Your task to perform on an android device: Clear the shopping cart on walmart. Search for lenovo thinkpad on walmart, select the first entry, and add it to the cart. Image 0: 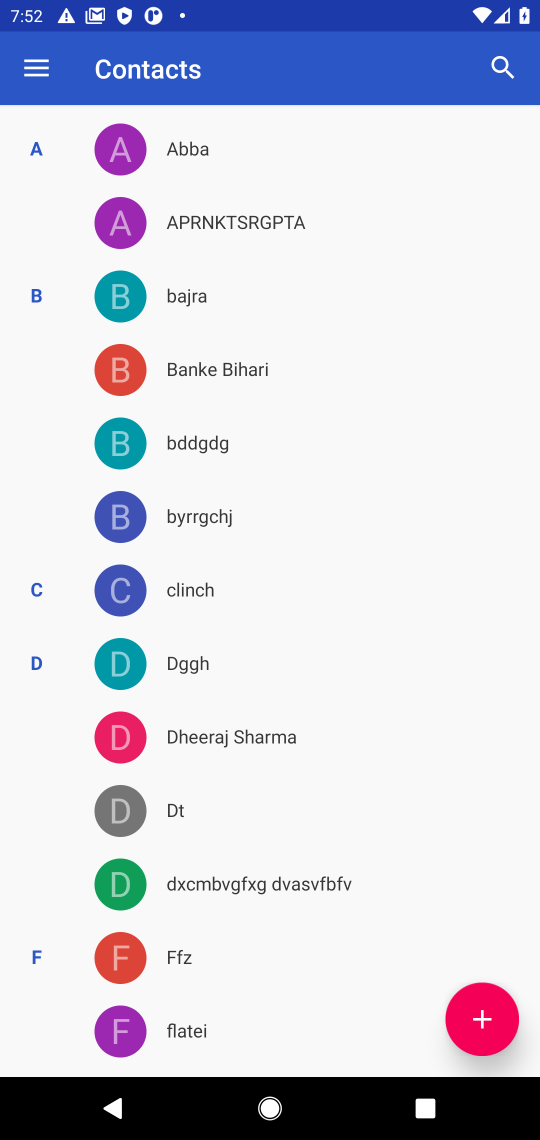
Step 0: press home button
Your task to perform on an android device: Clear the shopping cart on walmart. Search for lenovo thinkpad on walmart, select the first entry, and add it to the cart. Image 1: 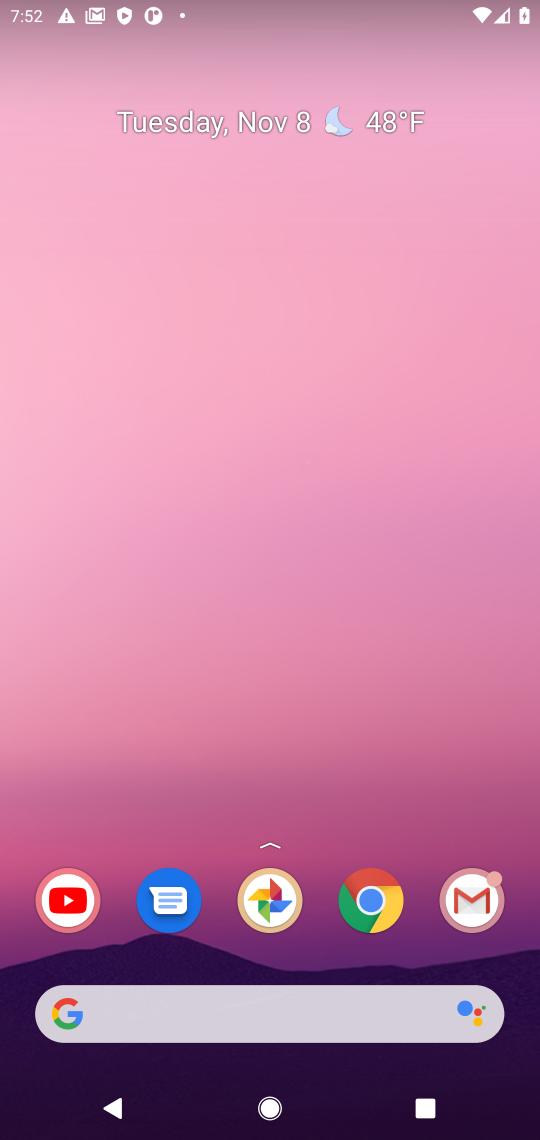
Step 1: click (392, 900)
Your task to perform on an android device: Clear the shopping cart on walmart. Search for lenovo thinkpad on walmart, select the first entry, and add it to the cart. Image 2: 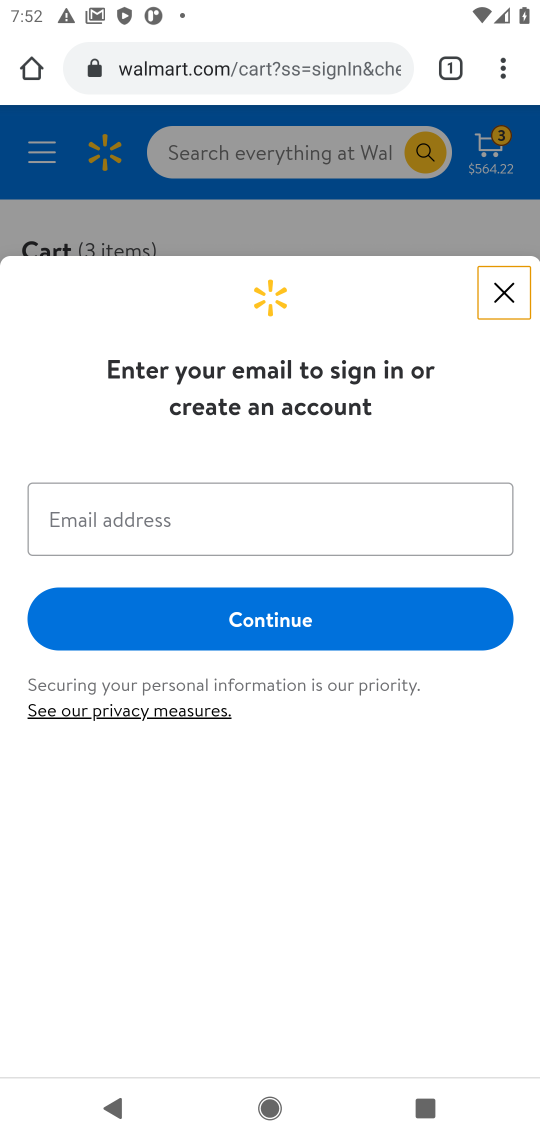
Step 2: click (192, 68)
Your task to perform on an android device: Clear the shopping cart on walmart. Search for lenovo thinkpad on walmart, select the first entry, and add it to the cart. Image 3: 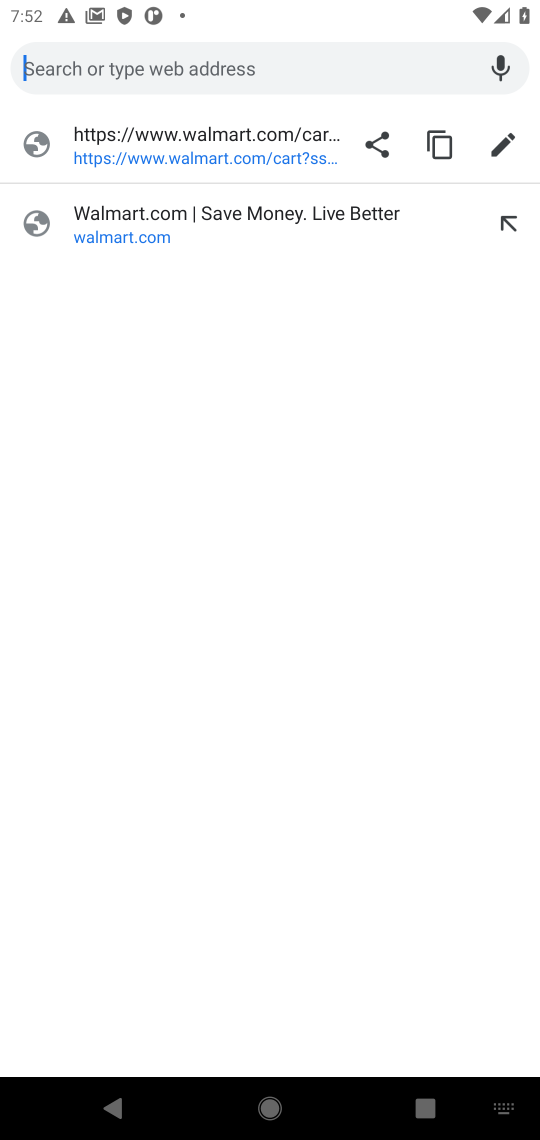
Step 3: type "walmart"
Your task to perform on an android device: Clear the shopping cart on walmart. Search for lenovo thinkpad on walmart, select the first entry, and add it to the cart. Image 4: 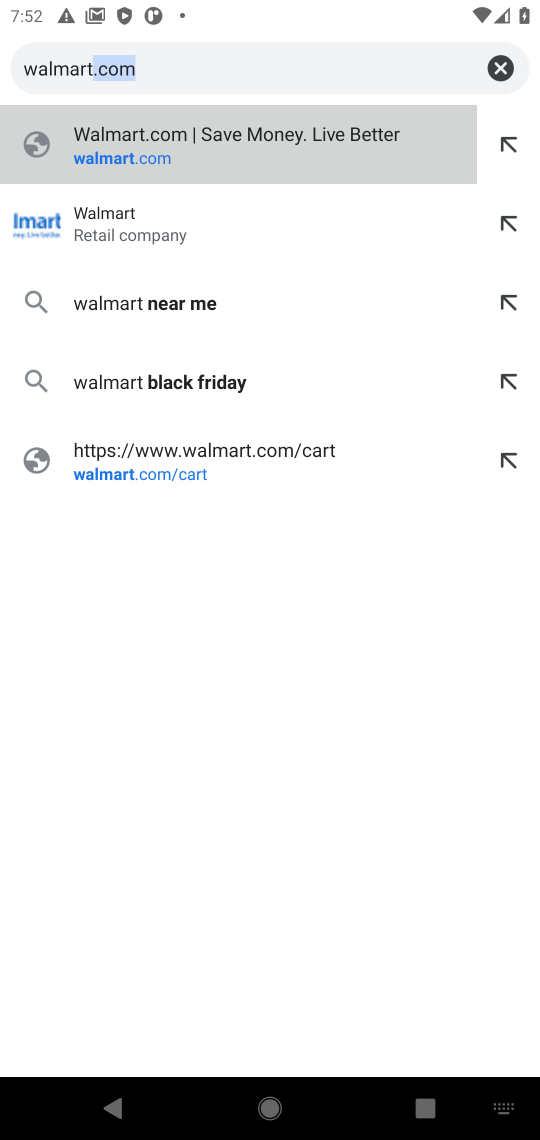
Step 4: click (99, 212)
Your task to perform on an android device: Clear the shopping cart on walmart. Search for lenovo thinkpad on walmart, select the first entry, and add it to the cart. Image 5: 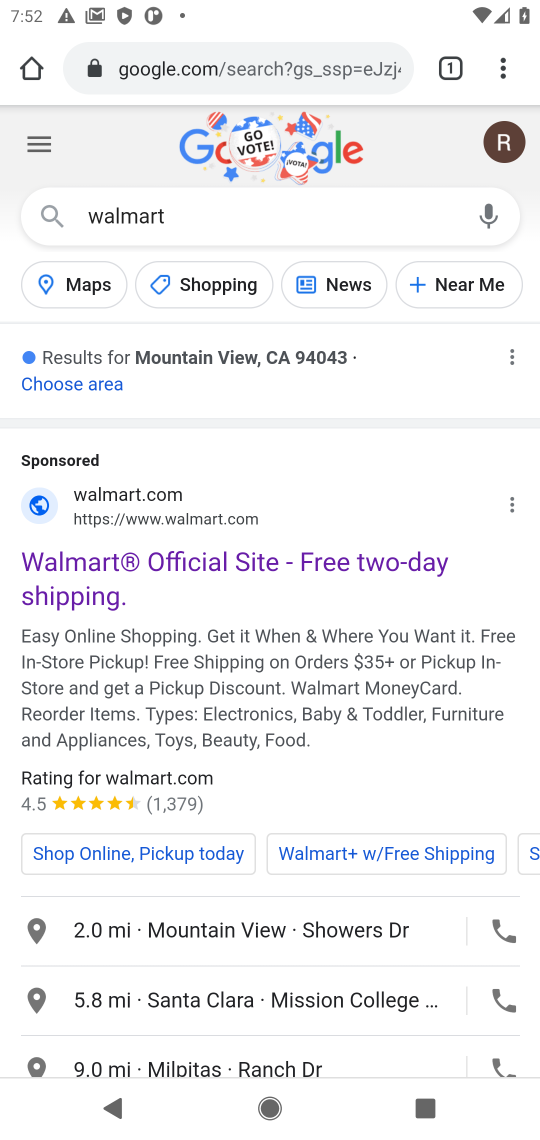
Step 5: drag from (71, 984) to (90, 205)
Your task to perform on an android device: Clear the shopping cart on walmart. Search for lenovo thinkpad on walmart, select the first entry, and add it to the cart. Image 6: 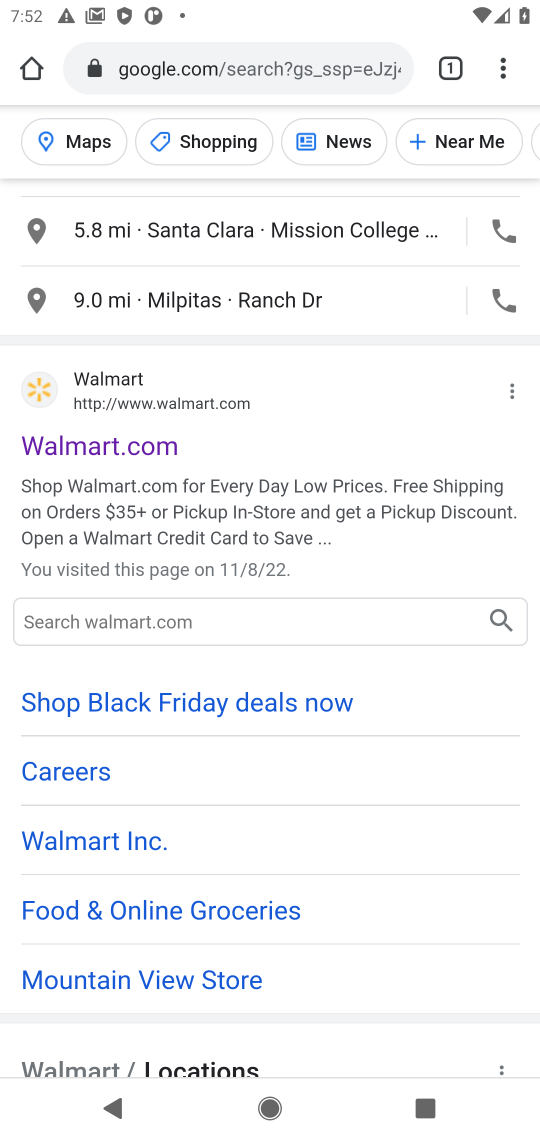
Step 6: click (106, 454)
Your task to perform on an android device: Clear the shopping cart on walmart. Search for lenovo thinkpad on walmart, select the first entry, and add it to the cart. Image 7: 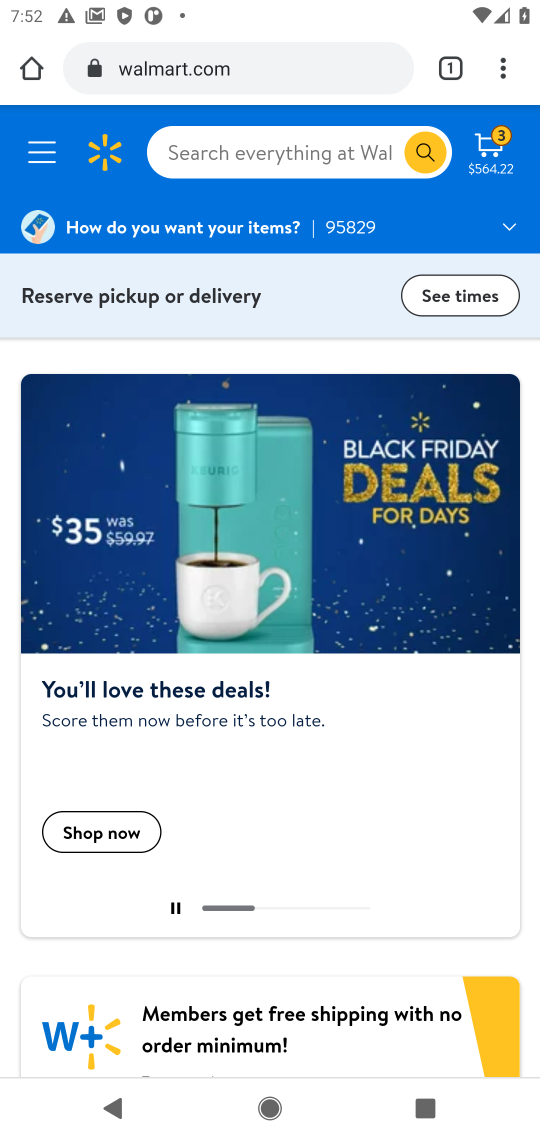
Step 7: click (218, 154)
Your task to perform on an android device: Clear the shopping cart on walmart. Search for lenovo thinkpad on walmart, select the first entry, and add it to the cart. Image 8: 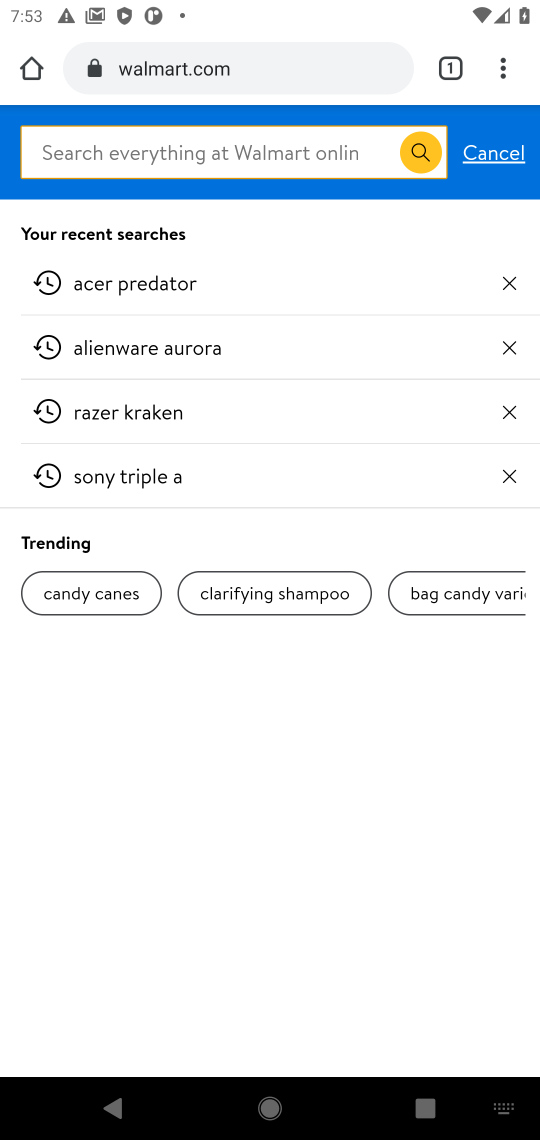
Step 8: type "lenevo thinkpad"
Your task to perform on an android device: Clear the shopping cart on walmart. Search for lenovo thinkpad on walmart, select the first entry, and add it to the cart. Image 9: 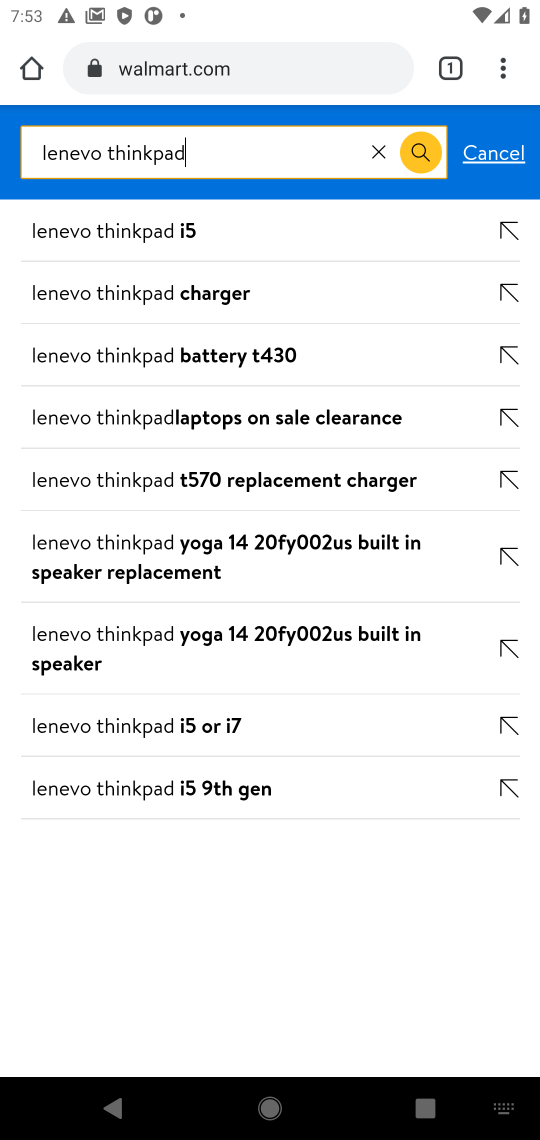
Step 9: click (153, 233)
Your task to perform on an android device: Clear the shopping cart on walmart. Search for lenovo thinkpad on walmart, select the first entry, and add it to the cart. Image 10: 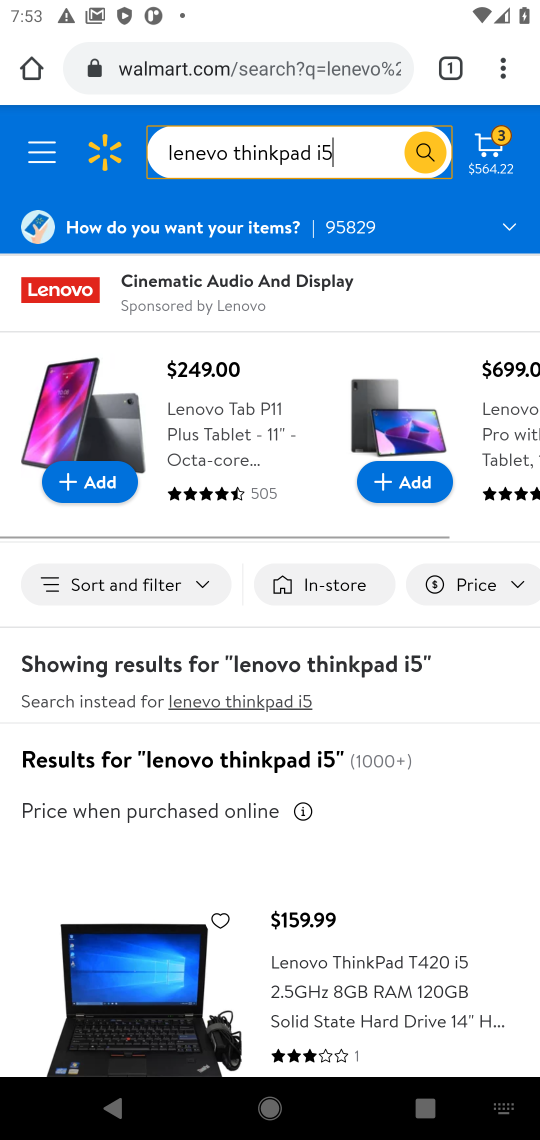
Step 10: drag from (212, 835) to (288, 359)
Your task to perform on an android device: Clear the shopping cart on walmart. Search for lenovo thinkpad on walmart, select the first entry, and add it to the cart. Image 11: 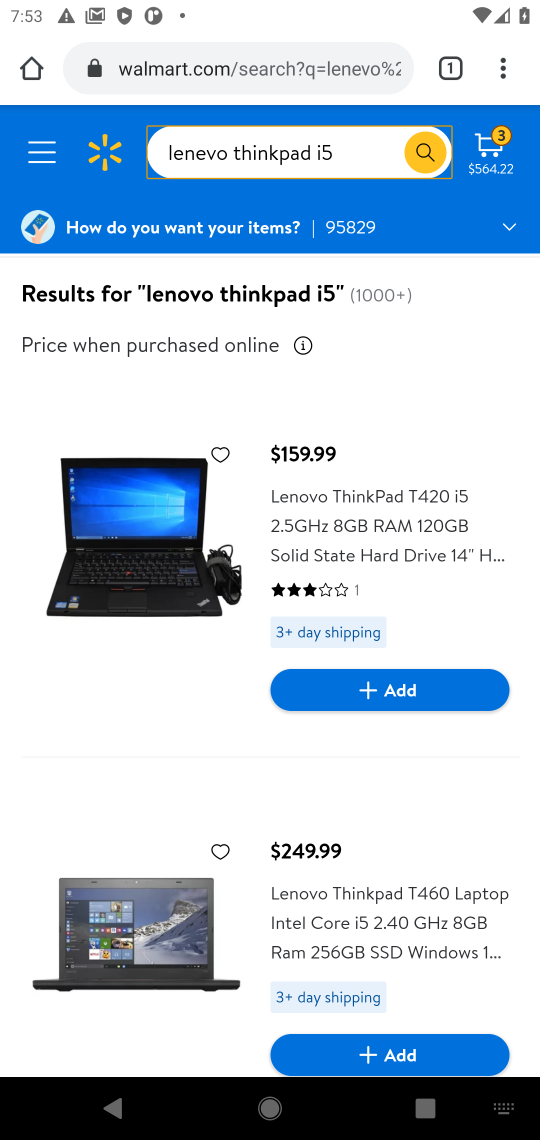
Step 11: click (300, 517)
Your task to perform on an android device: Clear the shopping cart on walmart. Search for lenovo thinkpad on walmart, select the first entry, and add it to the cart. Image 12: 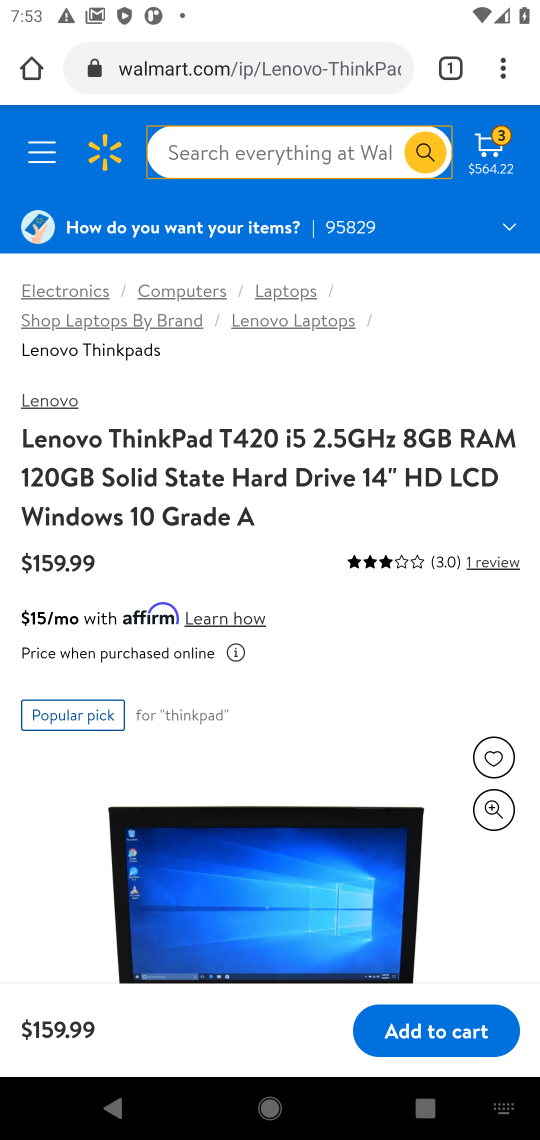
Step 12: drag from (238, 834) to (286, 180)
Your task to perform on an android device: Clear the shopping cart on walmart. Search for lenovo thinkpad on walmart, select the first entry, and add it to the cart. Image 13: 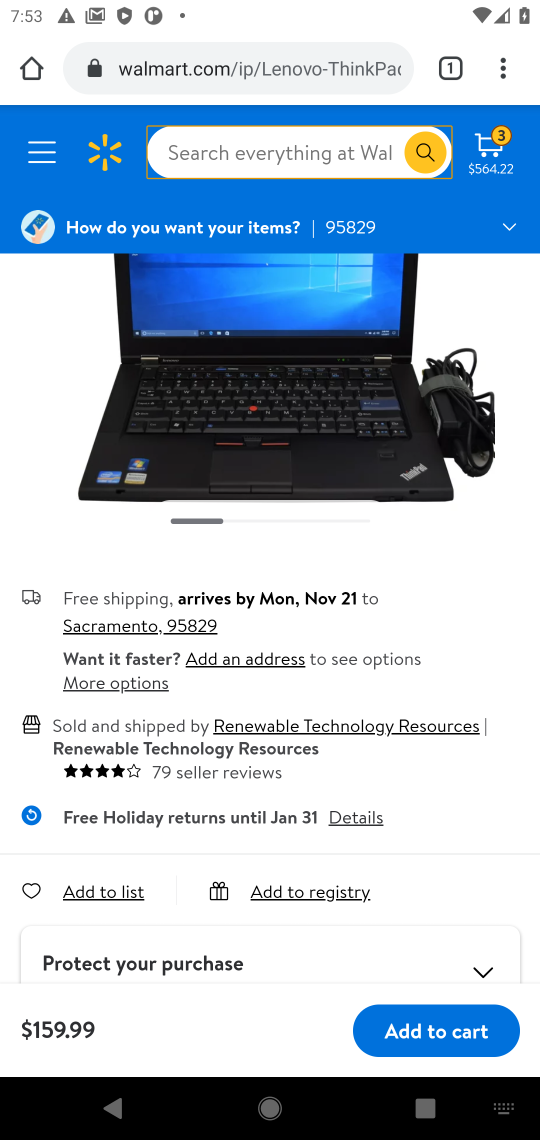
Step 13: click (424, 1034)
Your task to perform on an android device: Clear the shopping cart on walmart. Search for lenovo thinkpad on walmart, select the first entry, and add it to the cart. Image 14: 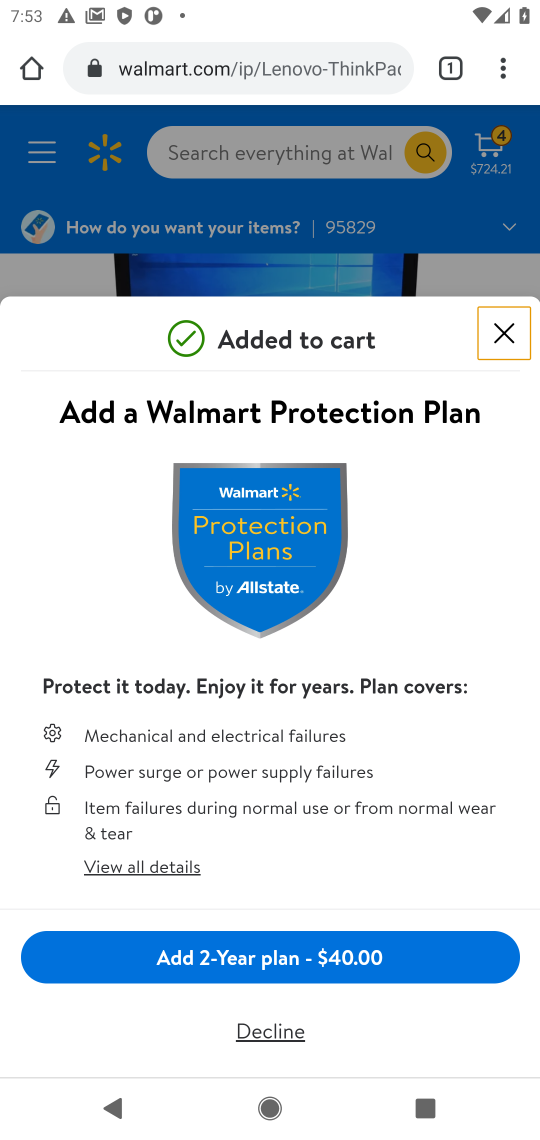
Step 14: click (490, 150)
Your task to perform on an android device: Clear the shopping cart on walmart. Search for lenovo thinkpad on walmart, select the first entry, and add it to the cart. Image 15: 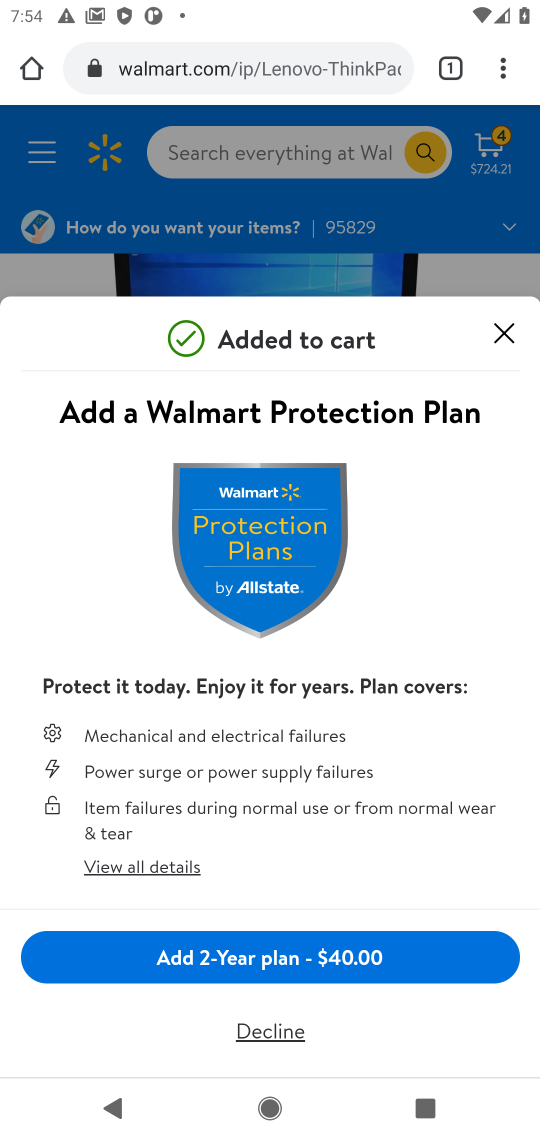
Step 15: click (504, 335)
Your task to perform on an android device: Clear the shopping cart on walmart. Search for lenovo thinkpad on walmart, select the first entry, and add it to the cart. Image 16: 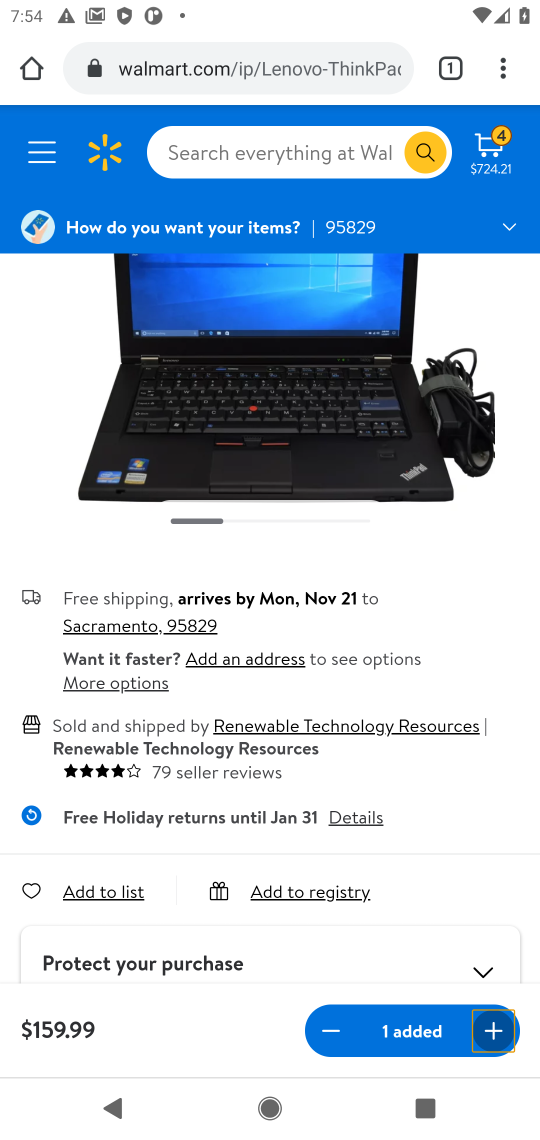
Step 16: click (489, 156)
Your task to perform on an android device: Clear the shopping cart on walmart. Search for lenovo thinkpad on walmart, select the first entry, and add it to the cart. Image 17: 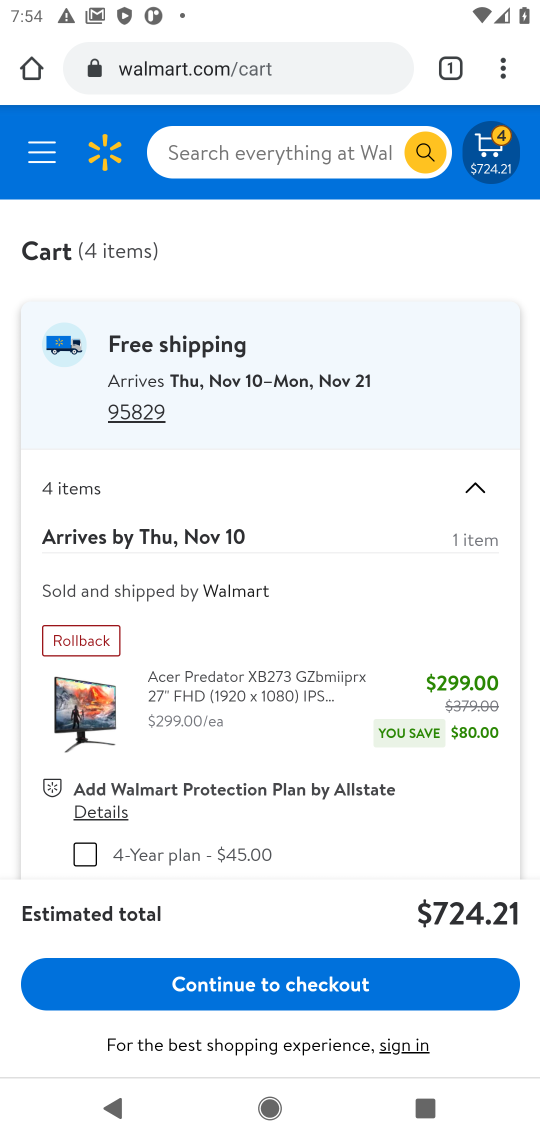
Step 17: task complete